Your task to perform on an android device: Go to Yahoo.com Image 0: 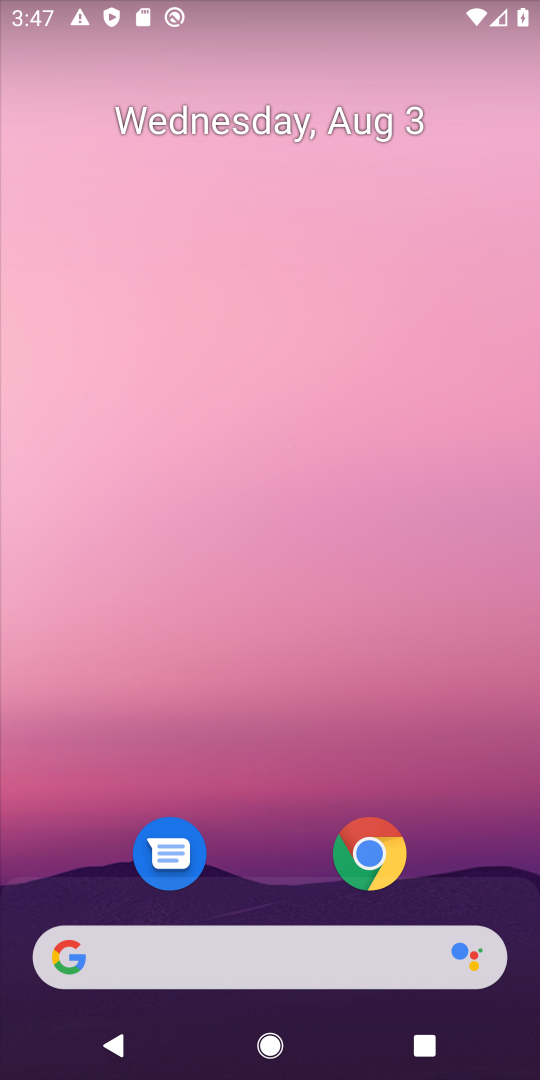
Step 0: drag from (268, 878) to (268, 108)
Your task to perform on an android device: Go to Yahoo.com Image 1: 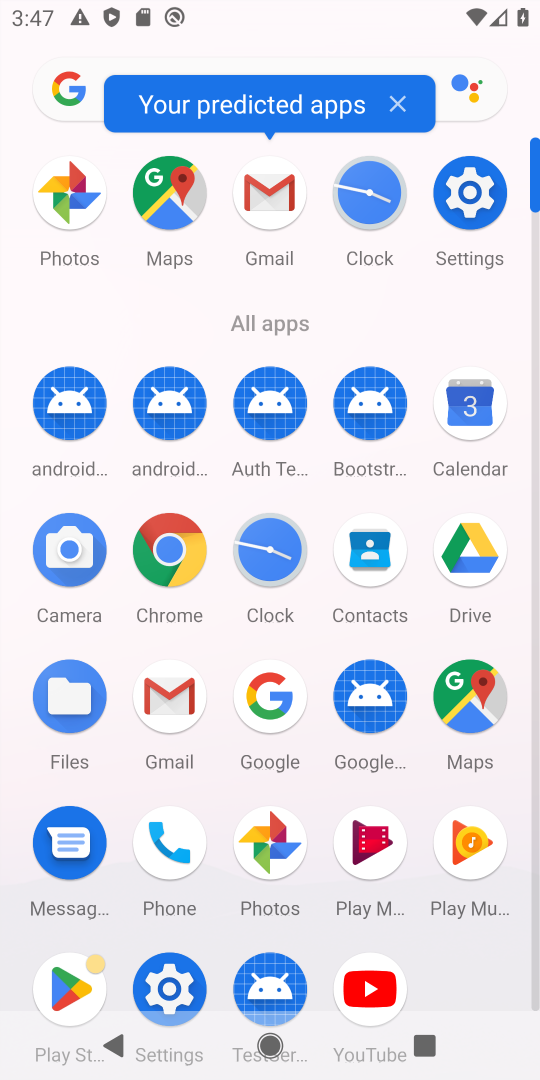
Step 1: click (170, 556)
Your task to perform on an android device: Go to Yahoo.com Image 2: 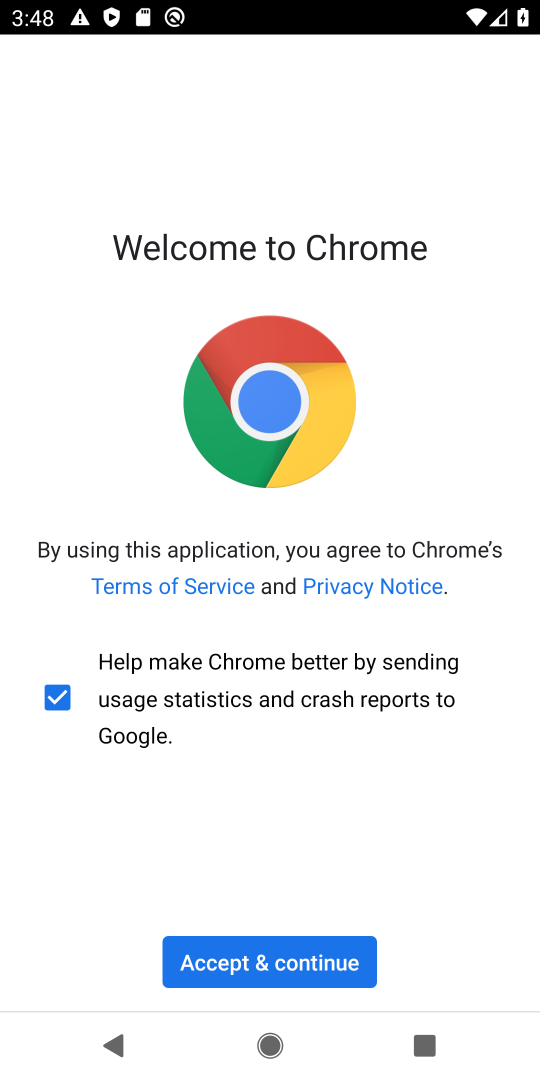
Step 2: click (314, 975)
Your task to perform on an android device: Go to Yahoo.com Image 3: 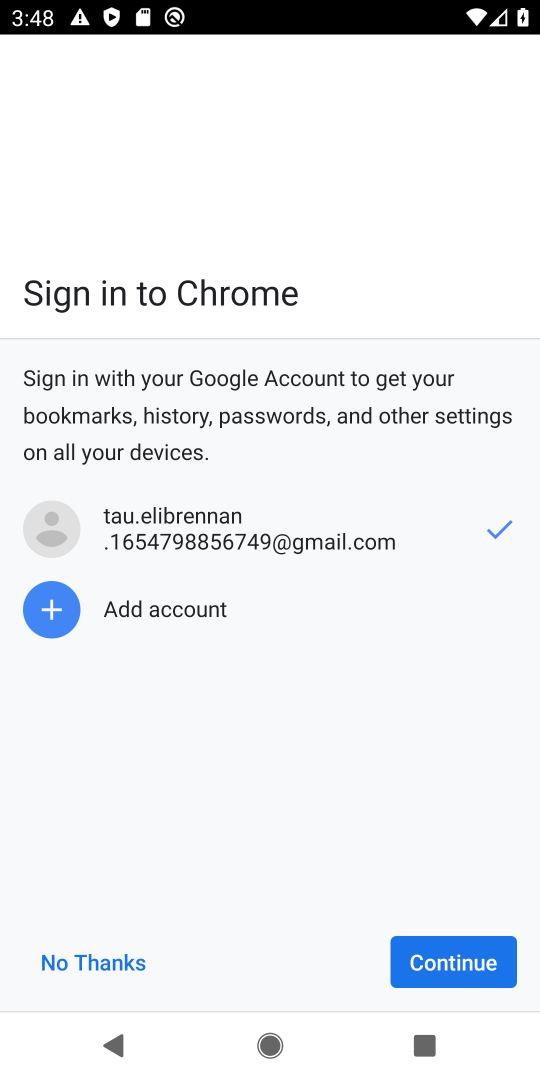
Step 3: click (464, 958)
Your task to perform on an android device: Go to Yahoo.com Image 4: 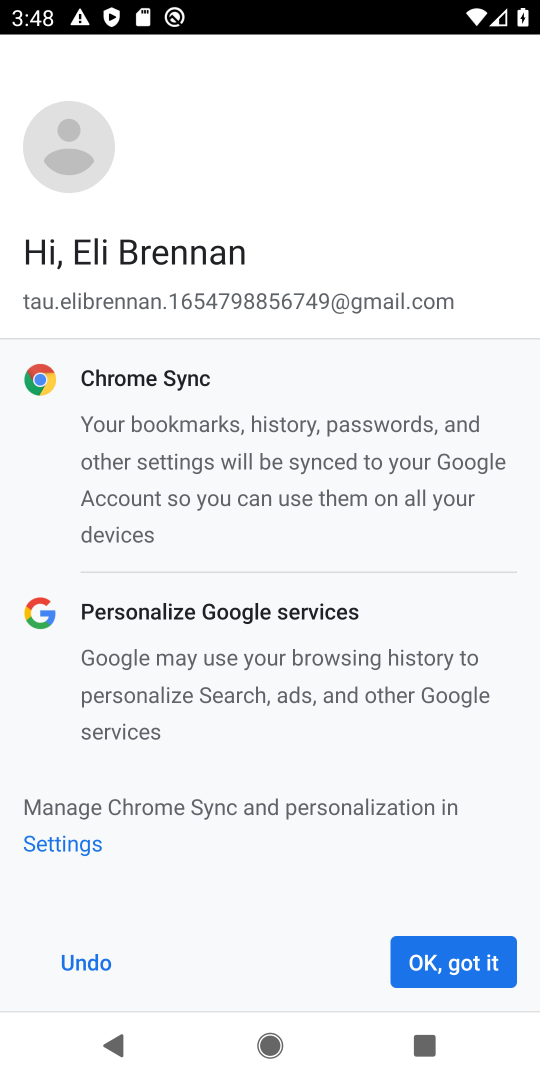
Step 4: click (458, 965)
Your task to perform on an android device: Go to Yahoo.com Image 5: 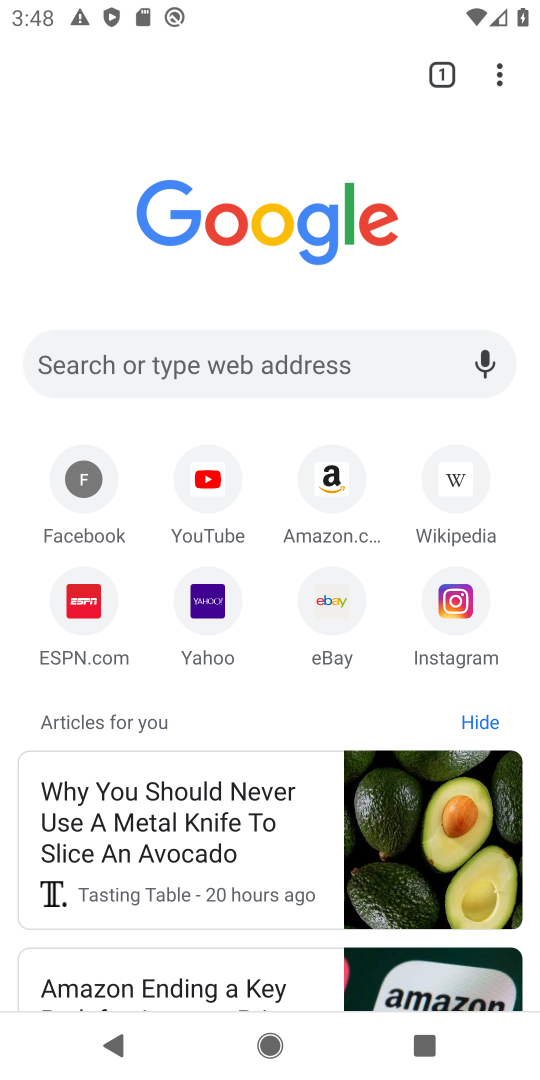
Step 5: click (215, 600)
Your task to perform on an android device: Go to Yahoo.com Image 6: 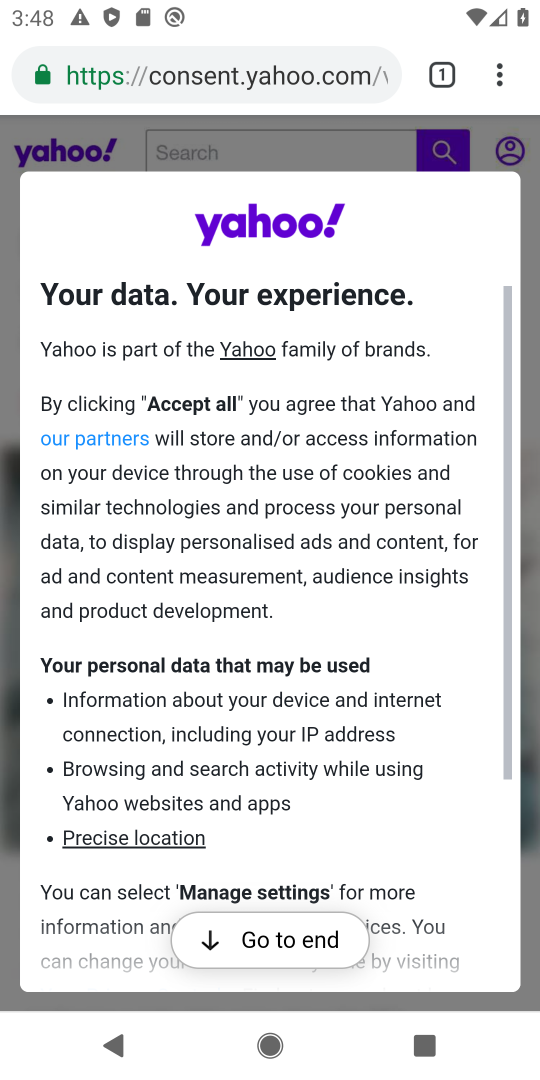
Step 6: task complete